Your task to perform on an android device: see sites visited before in the chrome app Image 0: 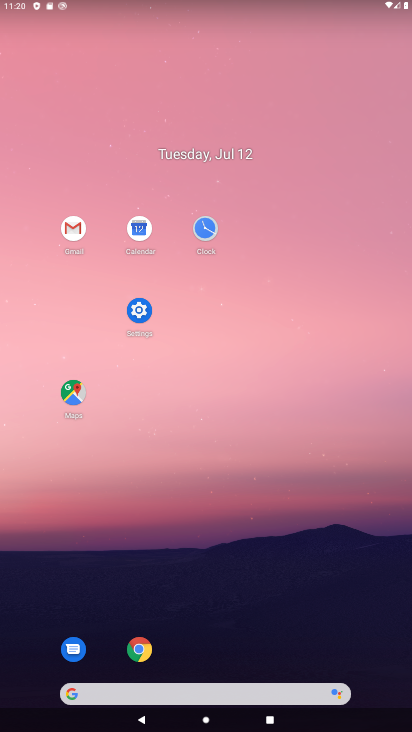
Step 0: click (131, 648)
Your task to perform on an android device: see sites visited before in the chrome app Image 1: 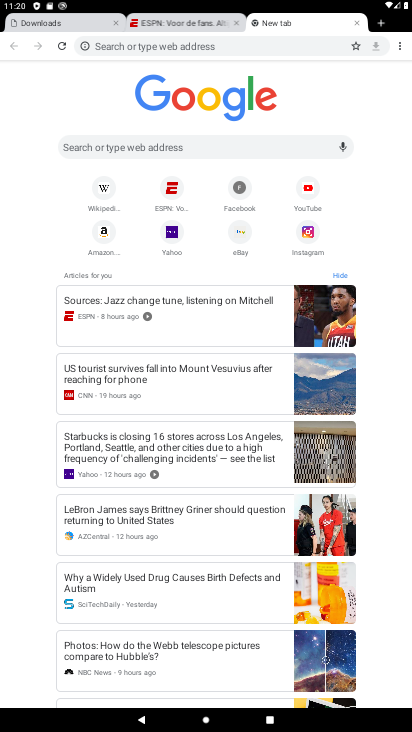
Step 1: click (402, 50)
Your task to perform on an android device: see sites visited before in the chrome app Image 2: 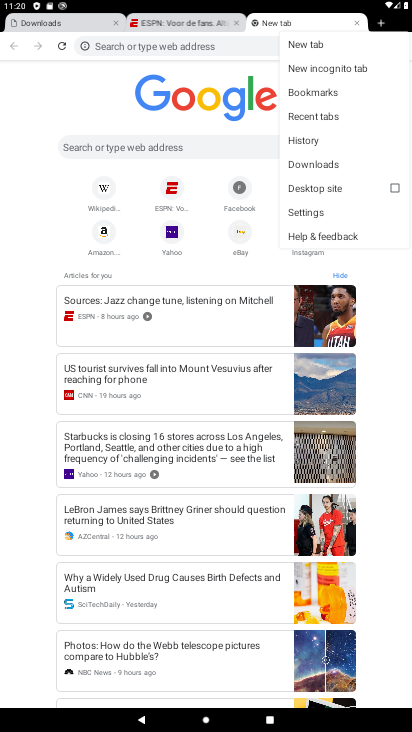
Step 2: click (341, 120)
Your task to perform on an android device: see sites visited before in the chrome app Image 3: 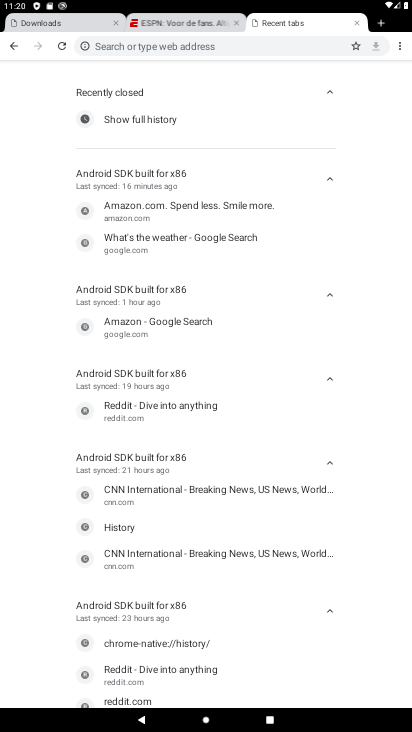
Step 3: task complete